Your task to perform on an android device: Go to internet settings Image 0: 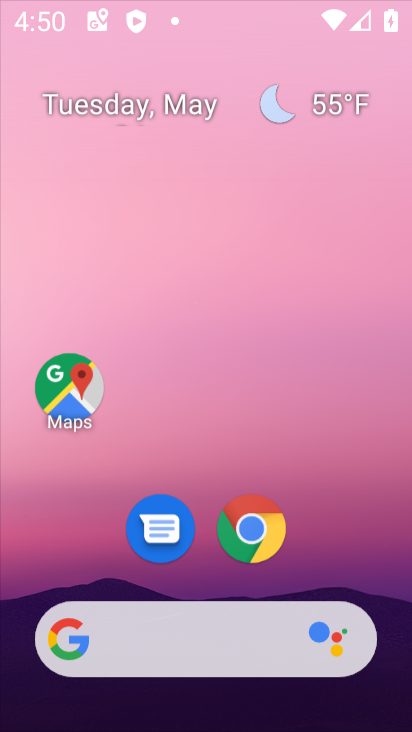
Step 0: click (180, 14)
Your task to perform on an android device: Go to internet settings Image 1: 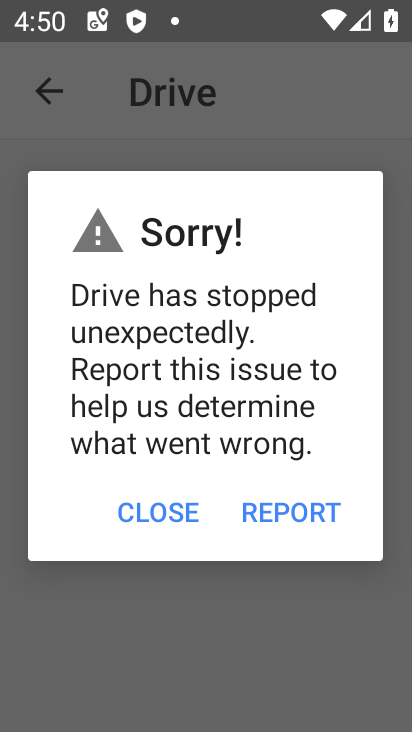
Step 1: drag from (288, 486) to (132, 4)
Your task to perform on an android device: Go to internet settings Image 2: 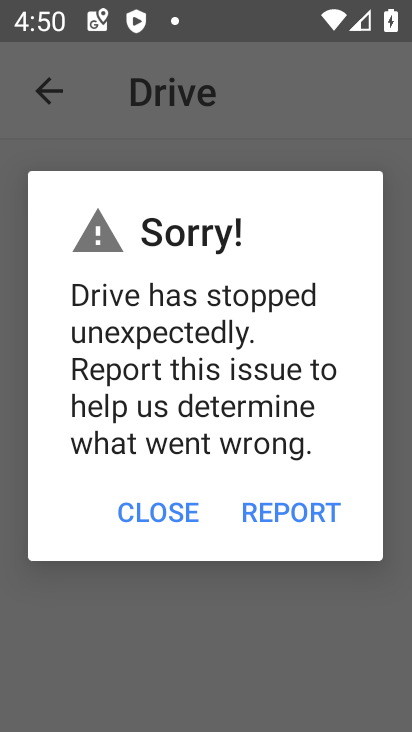
Step 2: click (165, 511)
Your task to perform on an android device: Go to internet settings Image 3: 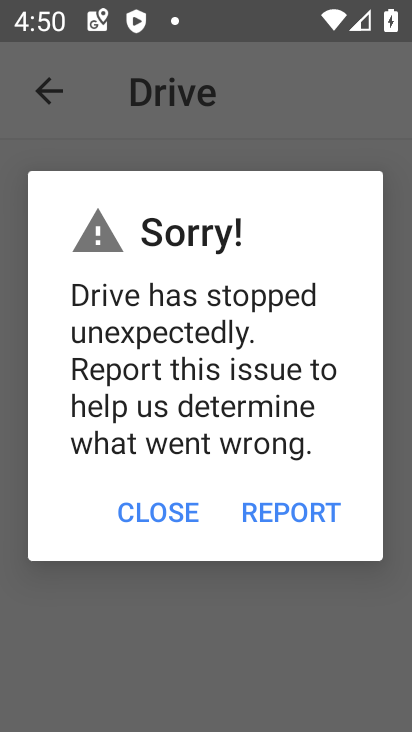
Step 3: click (155, 498)
Your task to perform on an android device: Go to internet settings Image 4: 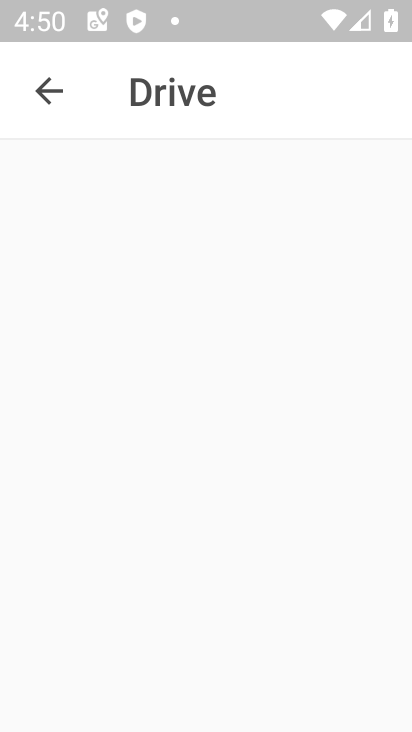
Step 4: click (155, 498)
Your task to perform on an android device: Go to internet settings Image 5: 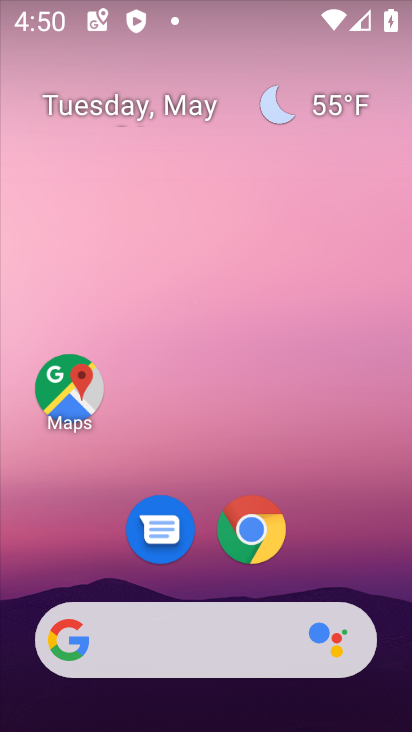
Step 5: drag from (283, 482) to (128, 14)
Your task to perform on an android device: Go to internet settings Image 6: 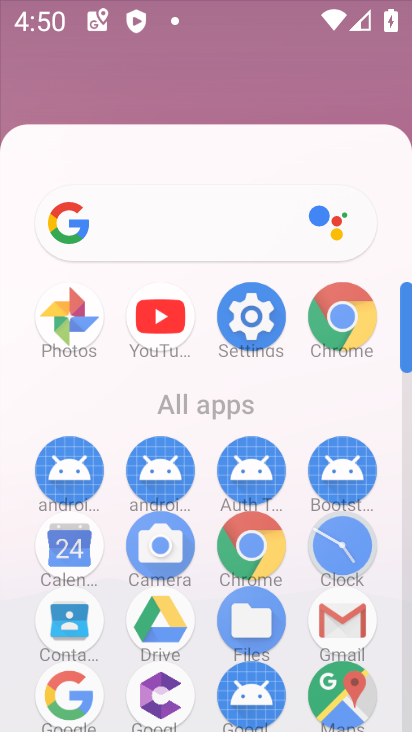
Step 6: drag from (271, 325) to (182, 5)
Your task to perform on an android device: Go to internet settings Image 7: 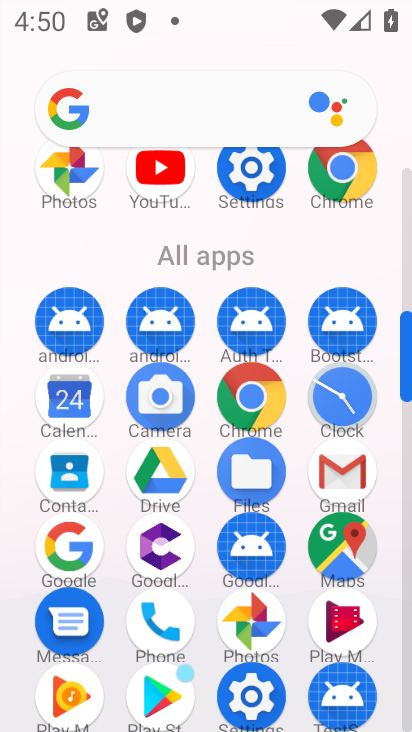
Step 7: click (249, 174)
Your task to perform on an android device: Go to internet settings Image 8: 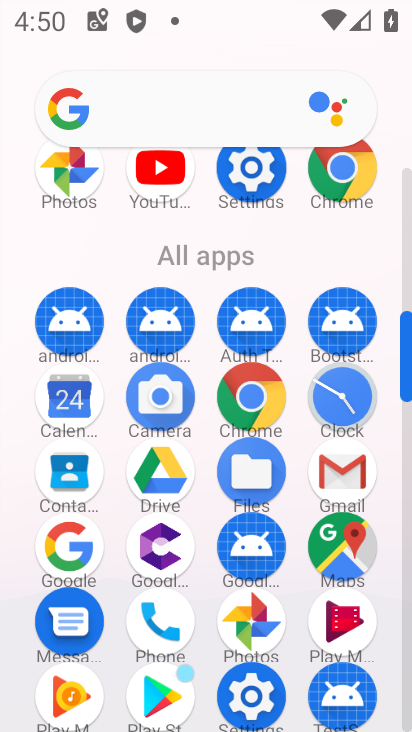
Step 8: click (249, 174)
Your task to perform on an android device: Go to internet settings Image 9: 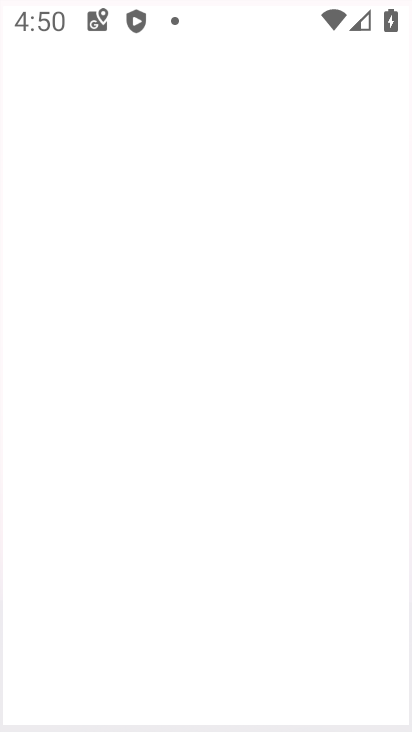
Step 9: click (249, 174)
Your task to perform on an android device: Go to internet settings Image 10: 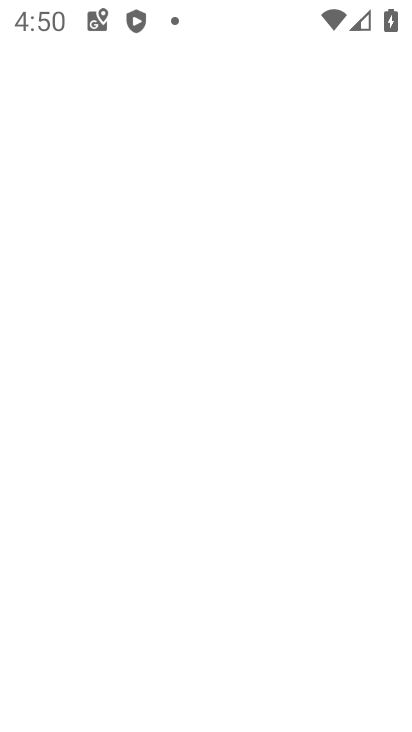
Step 10: click (249, 174)
Your task to perform on an android device: Go to internet settings Image 11: 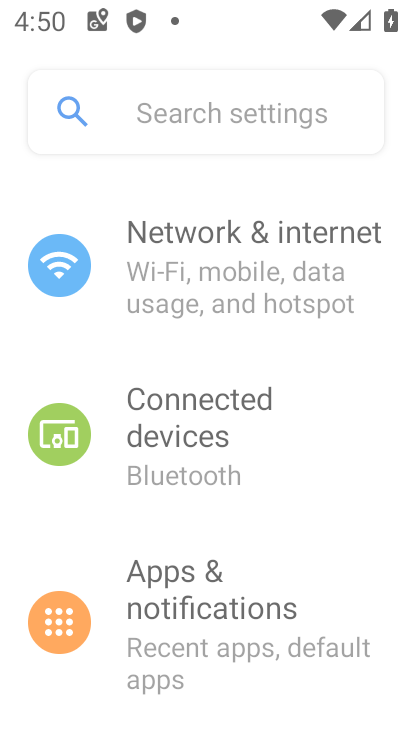
Step 11: click (249, 174)
Your task to perform on an android device: Go to internet settings Image 12: 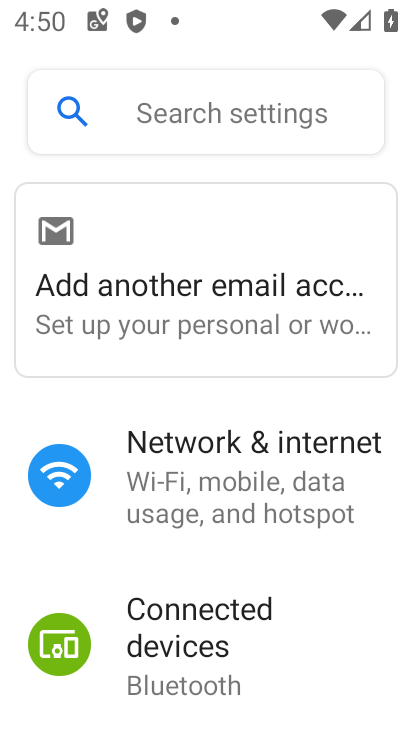
Step 12: click (221, 491)
Your task to perform on an android device: Go to internet settings Image 13: 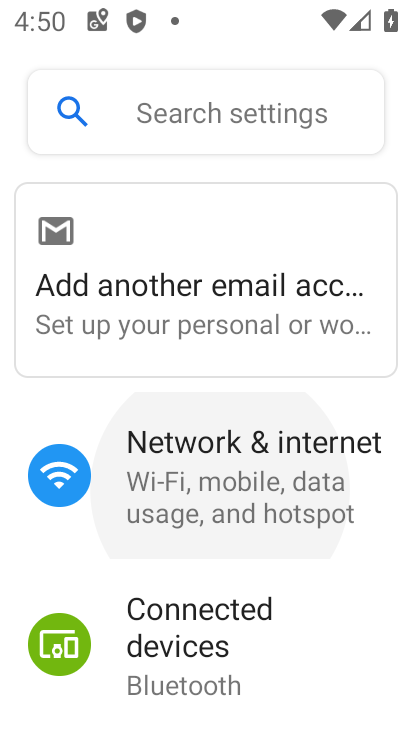
Step 13: click (221, 491)
Your task to perform on an android device: Go to internet settings Image 14: 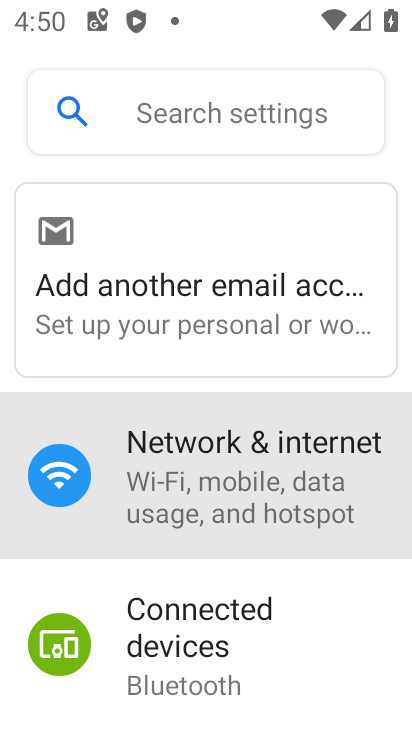
Step 14: click (222, 490)
Your task to perform on an android device: Go to internet settings Image 15: 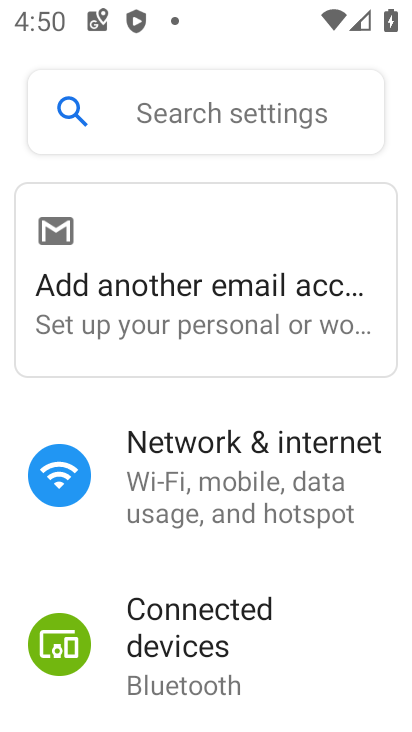
Step 15: click (223, 490)
Your task to perform on an android device: Go to internet settings Image 16: 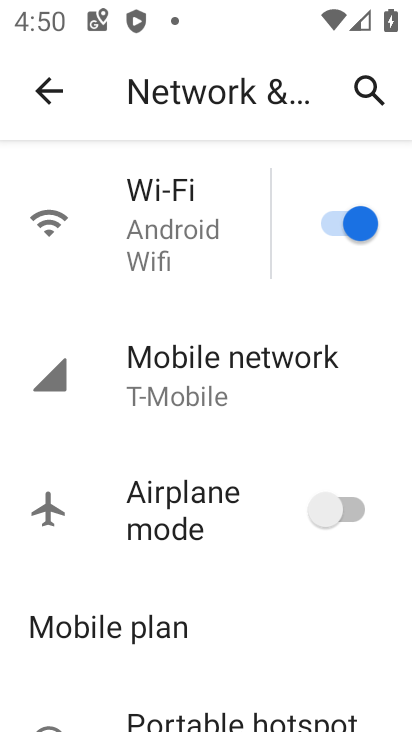
Step 16: task complete